Your task to perform on an android device: star an email in the gmail app Image 0: 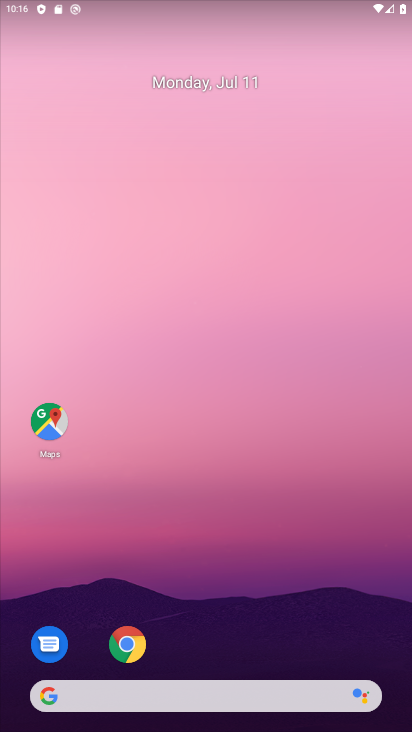
Step 0: drag from (191, 631) to (201, 187)
Your task to perform on an android device: star an email in the gmail app Image 1: 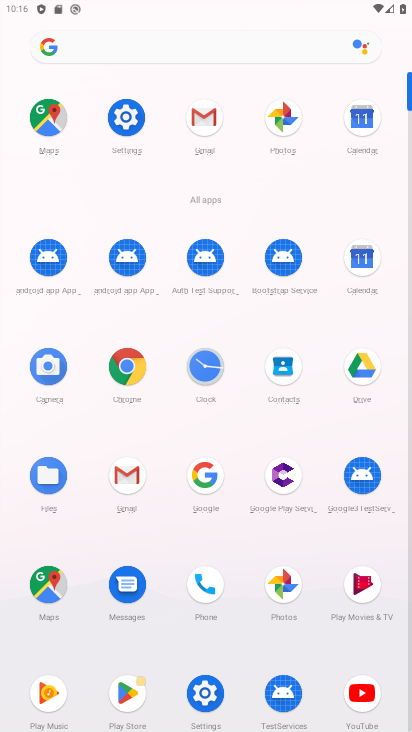
Step 1: click (128, 488)
Your task to perform on an android device: star an email in the gmail app Image 2: 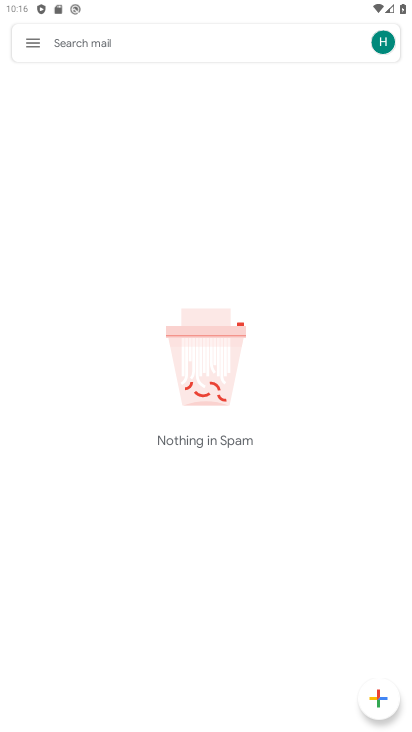
Step 2: click (31, 33)
Your task to perform on an android device: star an email in the gmail app Image 3: 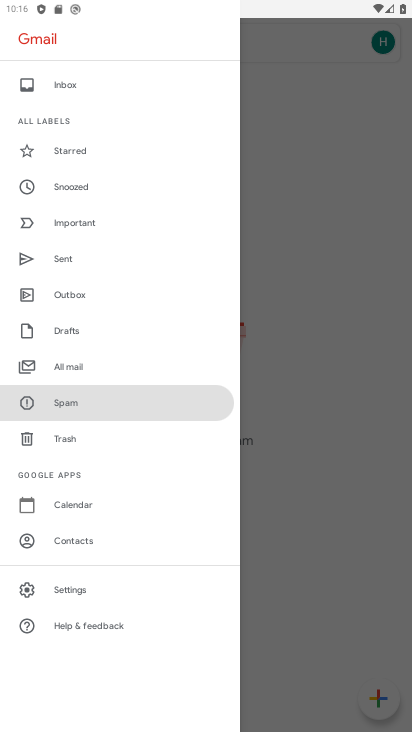
Step 3: click (90, 84)
Your task to perform on an android device: star an email in the gmail app Image 4: 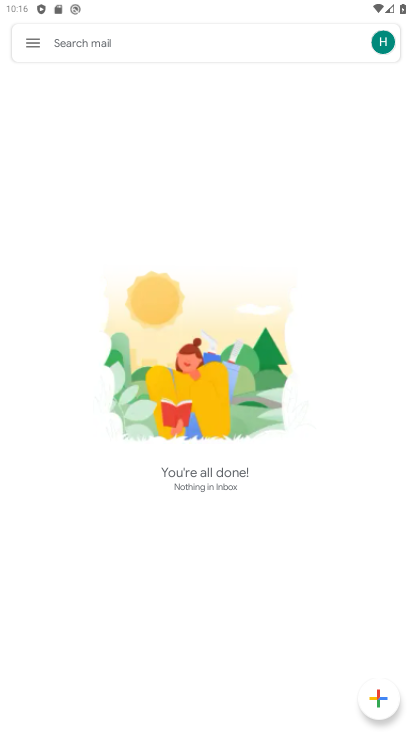
Step 4: task complete